Your task to perform on an android device: Go to battery settings Image 0: 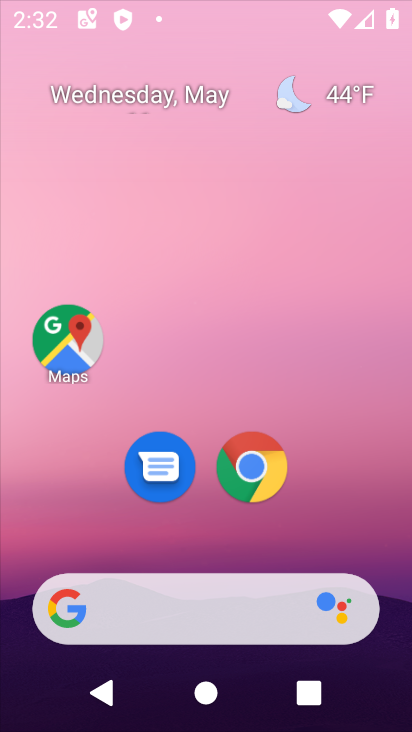
Step 0: press back button
Your task to perform on an android device: Go to battery settings Image 1: 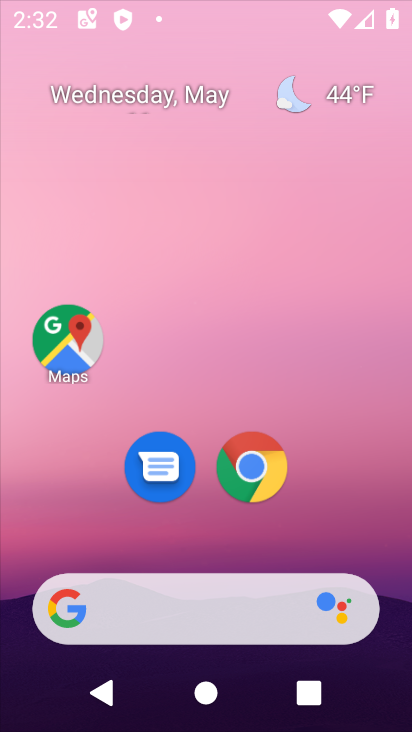
Step 1: press home button
Your task to perform on an android device: Go to battery settings Image 2: 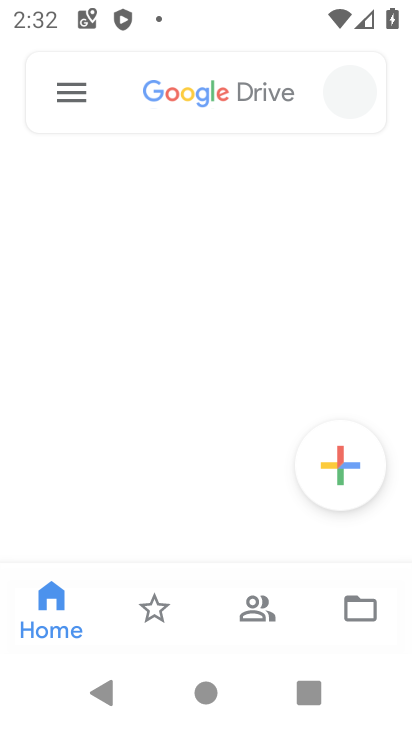
Step 2: click (205, 50)
Your task to perform on an android device: Go to battery settings Image 3: 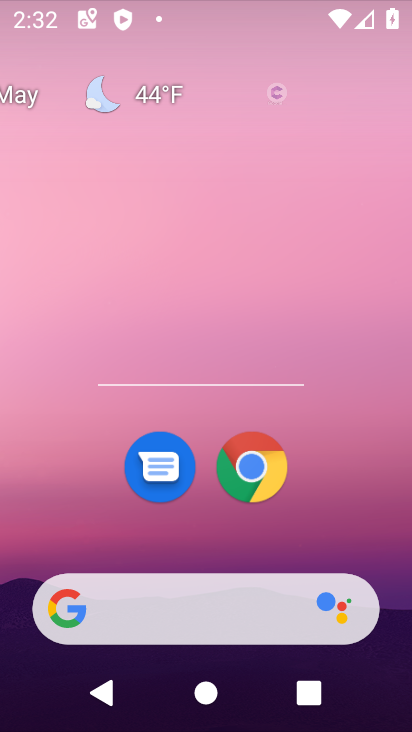
Step 3: press back button
Your task to perform on an android device: Go to battery settings Image 4: 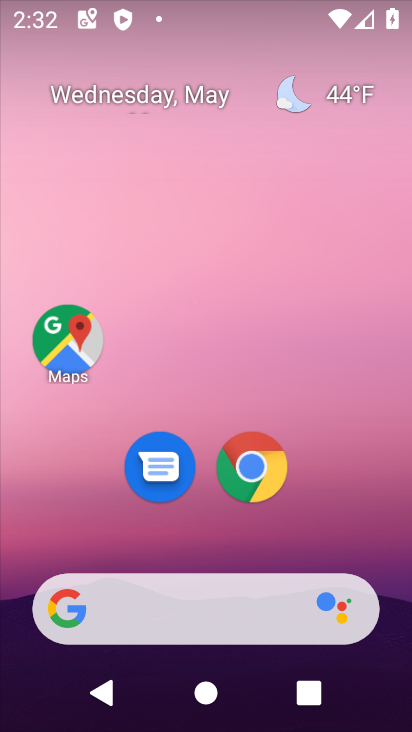
Step 4: drag from (345, 506) to (215, 150)
Your task to perform on an android device: Go to battery settings Image 5: 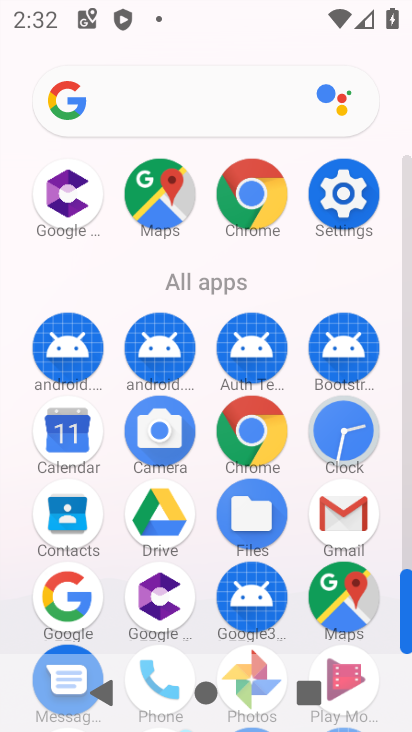
Step 5: click (351, 263)
Your task to perform on an android device: Go to battery settings Image 6: 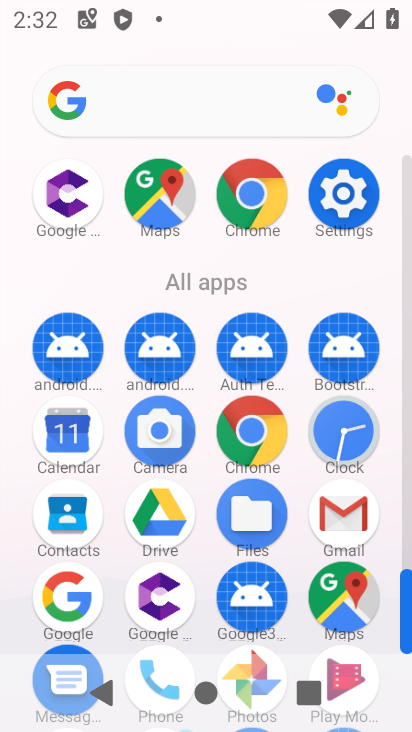
Step 6: click (341, 203)
Your task to perform on an android device: Go to battery settings Image 7: 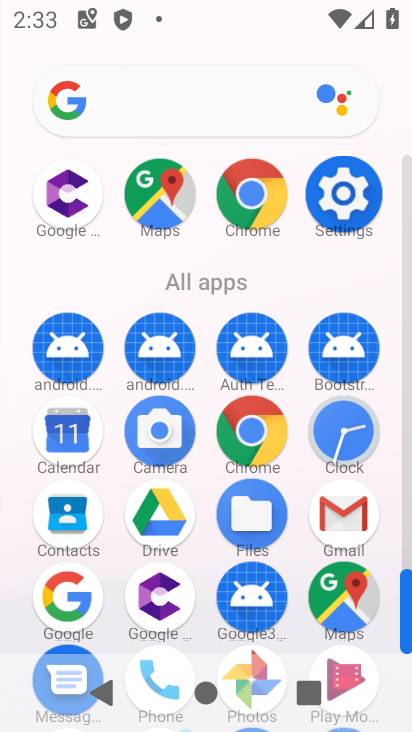
Step 7: click (341, 203)
Your task to perform on an android device: Go to battery settings Image 8: 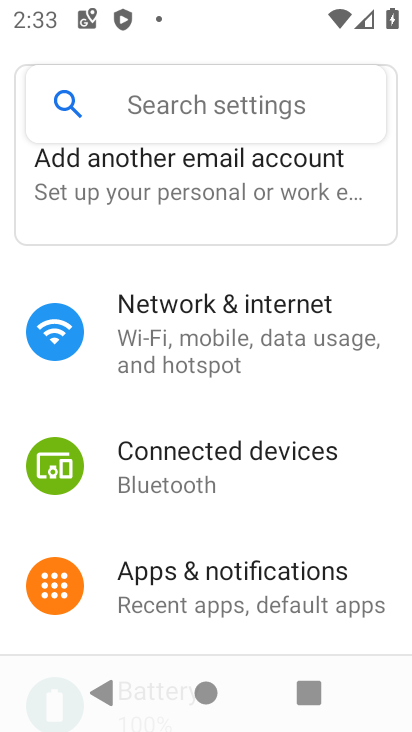
Step 8: drag from (205, 531) to (159, 237)
Your task to perform on an android device: Go to battery settings Image 9: 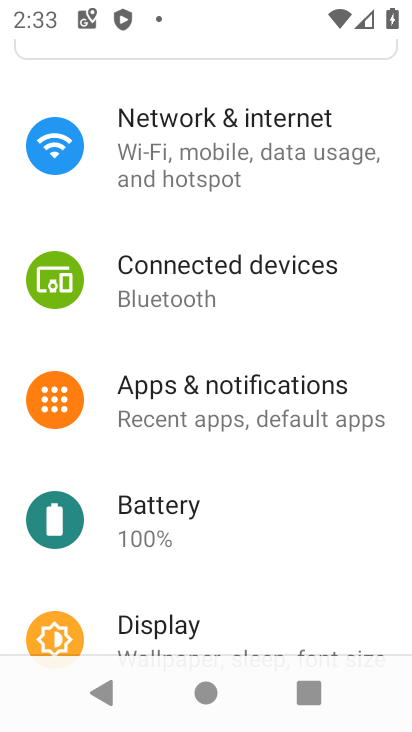
Step 9: drag from (274, 537) to (273, 209)
Your task to perform on an android device: Go to battery settings Image 10: 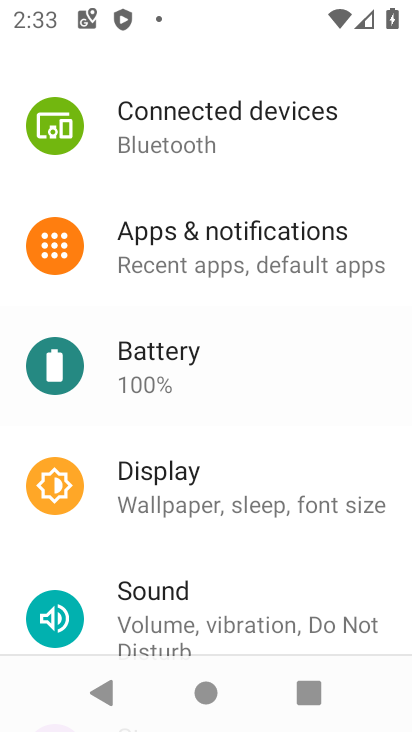
Step 10: drag from (242, 486) to (254, 172)
Your task to perform on an android device: Go to battery settings Image 11: 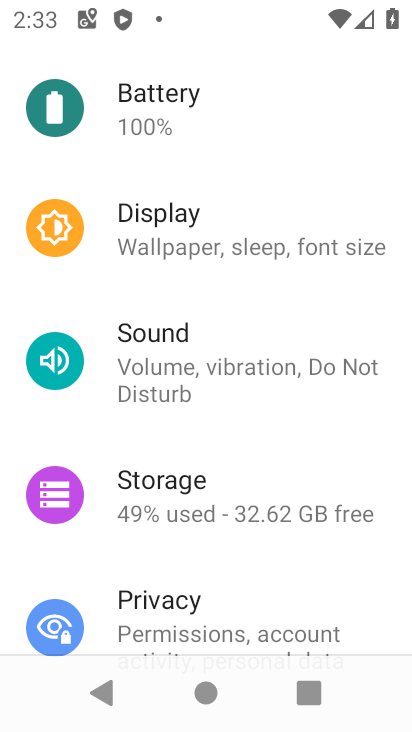
Step 11: click (144, 105)
Your task to perform on an android device: Go to battery settings Image 12: 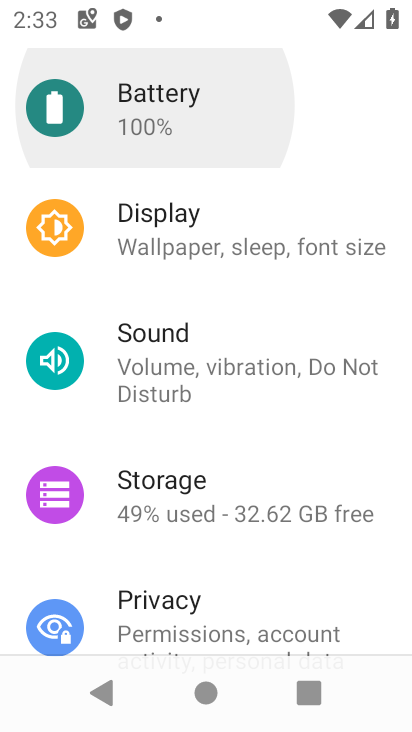
Step 12: click (145, 106)
Your task to perform on an android device: Go to battery settings Image 13: 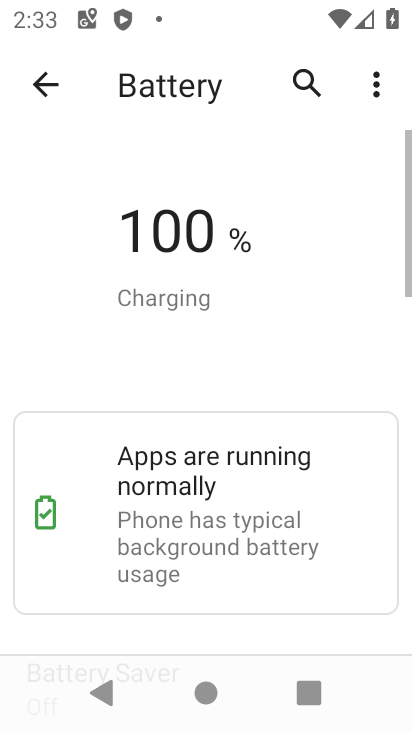
Step 13: task complete